Your task to perform on an android device: Go to CNN.com Image 0: 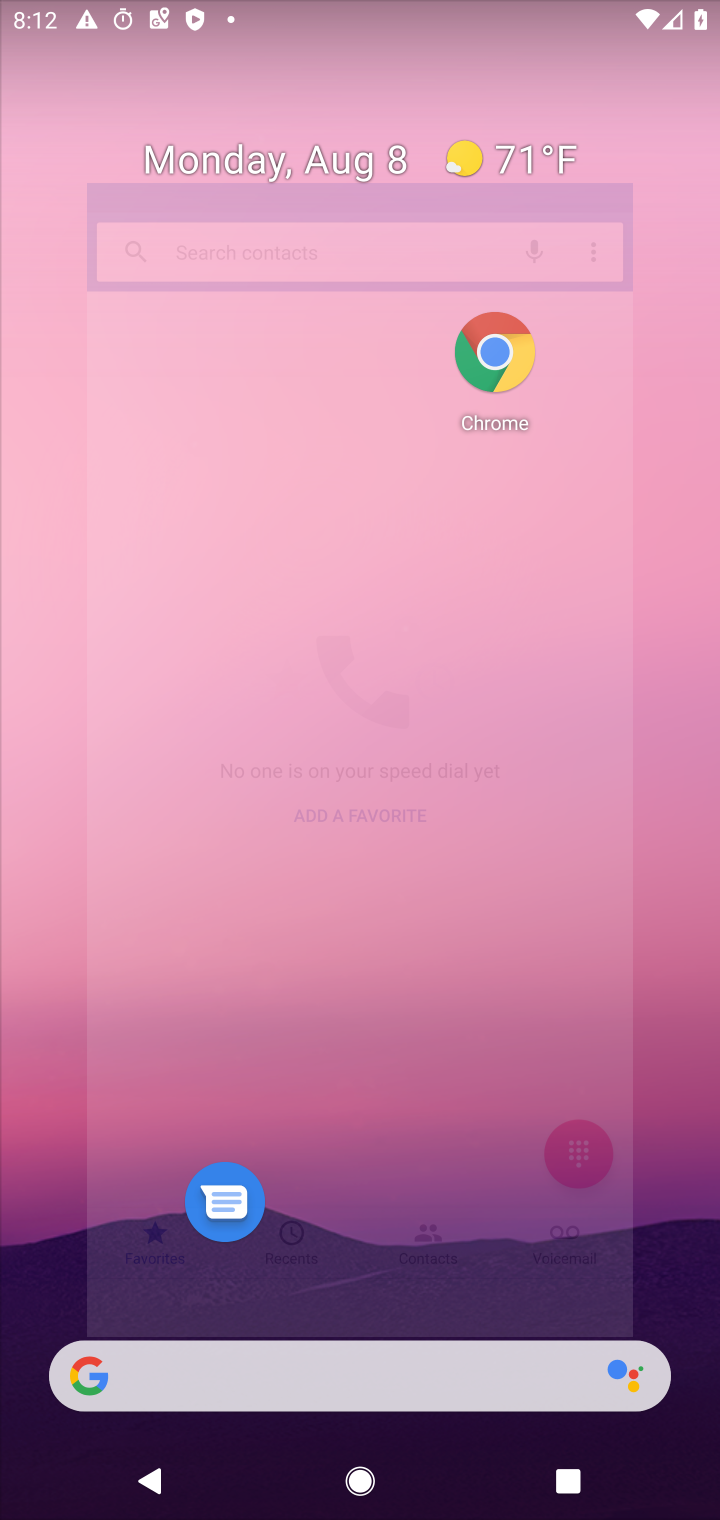
Step 0: press home button
Your task to perform on an android device: Go to CNN.com Image 1: 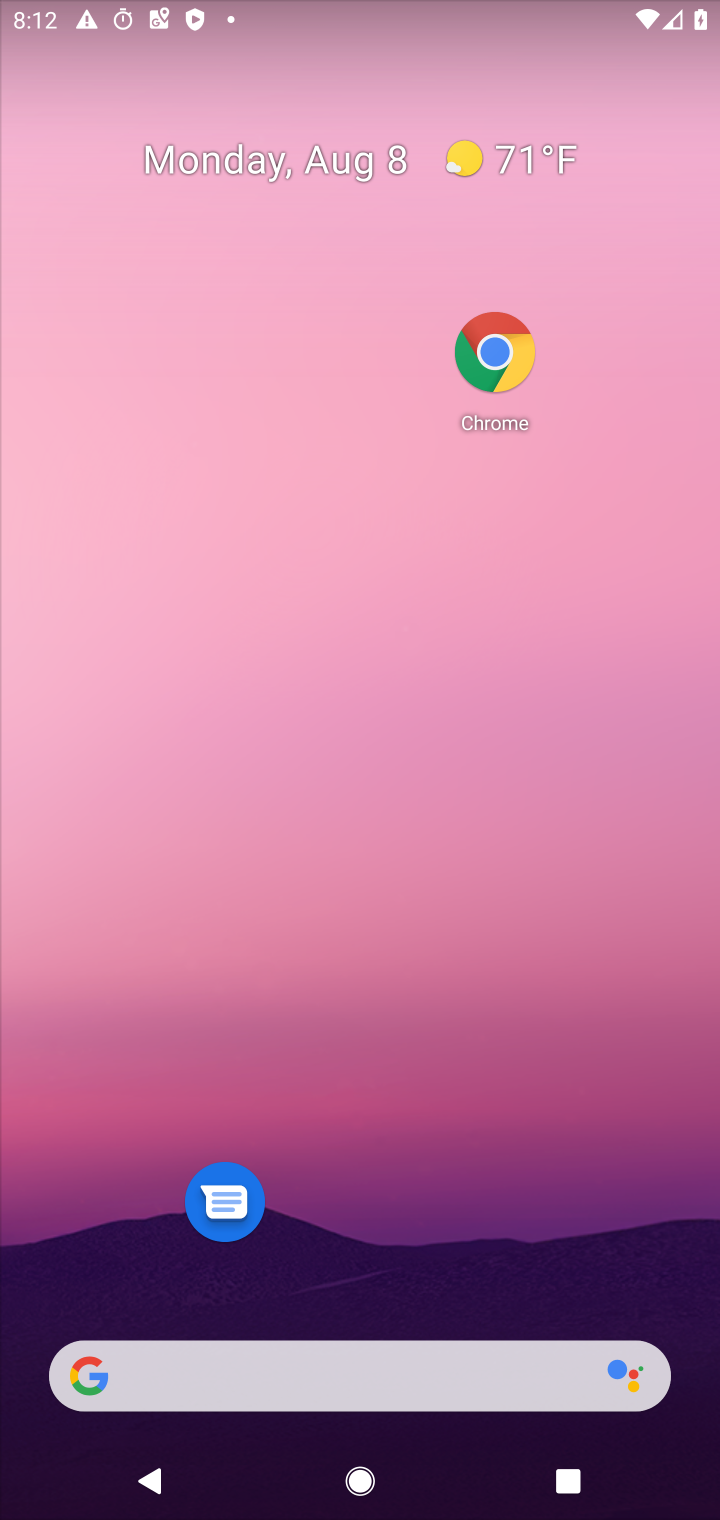
Step 1: click (516, 407)
Your task to perform on an android device: Go to CNN.com Image 2: 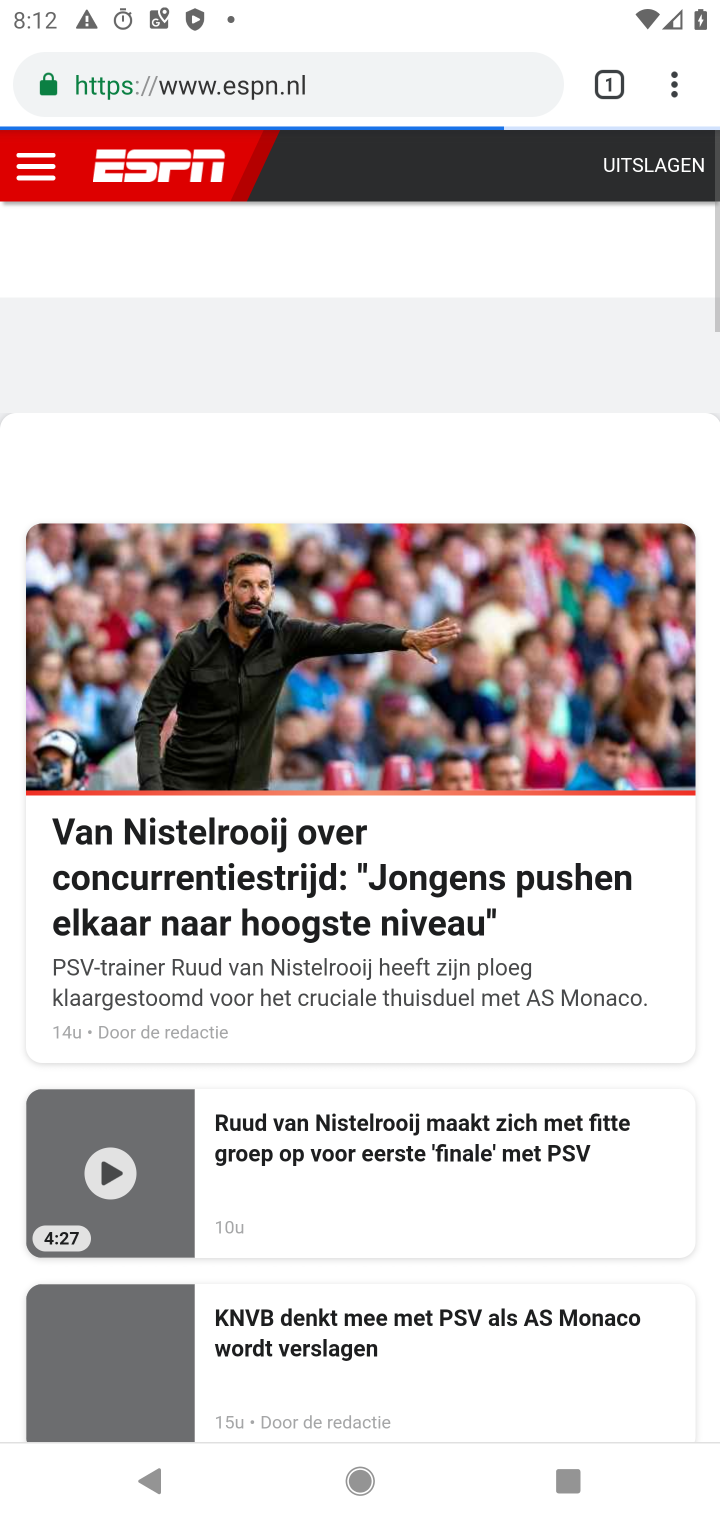
Step 2: click (486, 88)
Your task to perform on an android device: Go to CNN.com Image 3: 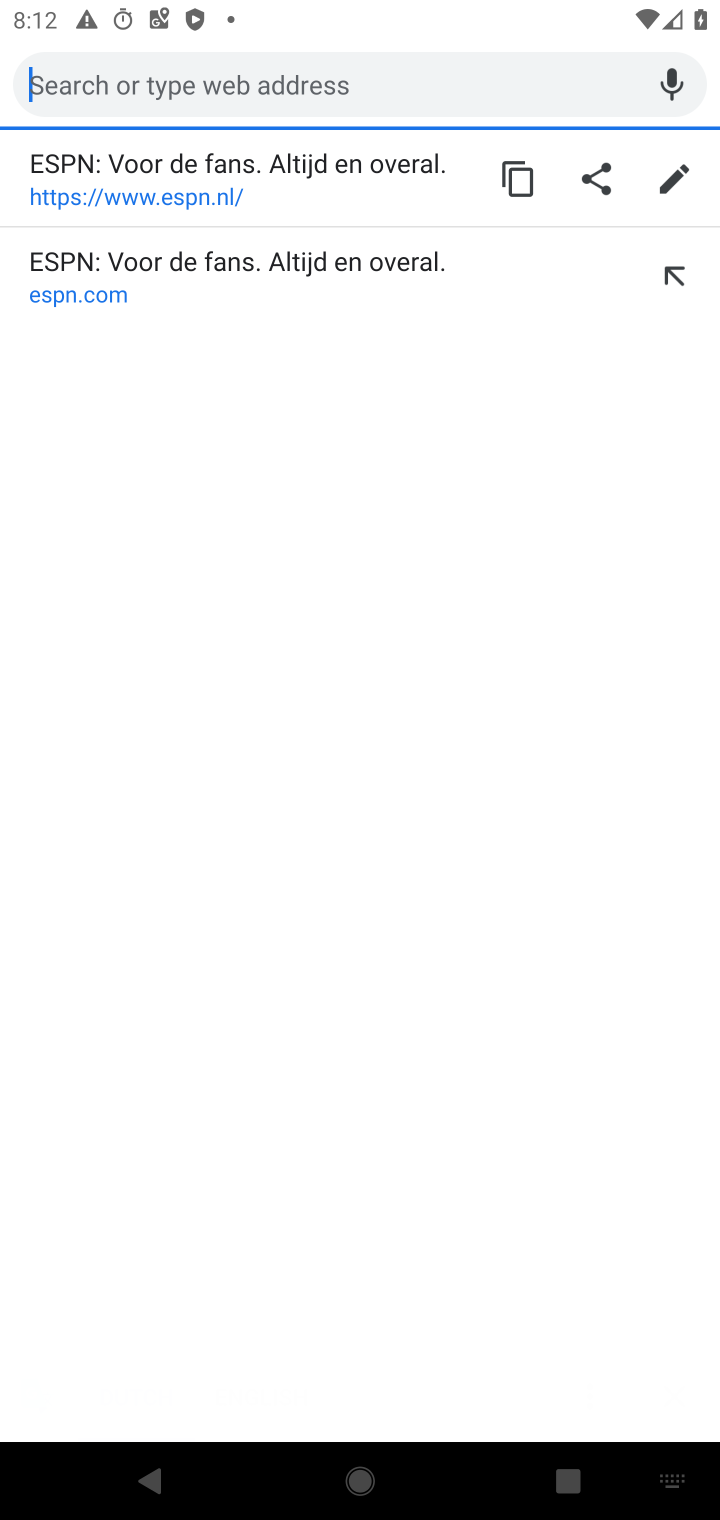
Step 3: type "cnn"
Your task to perform on an android device: Go to CNN.com Image 4: 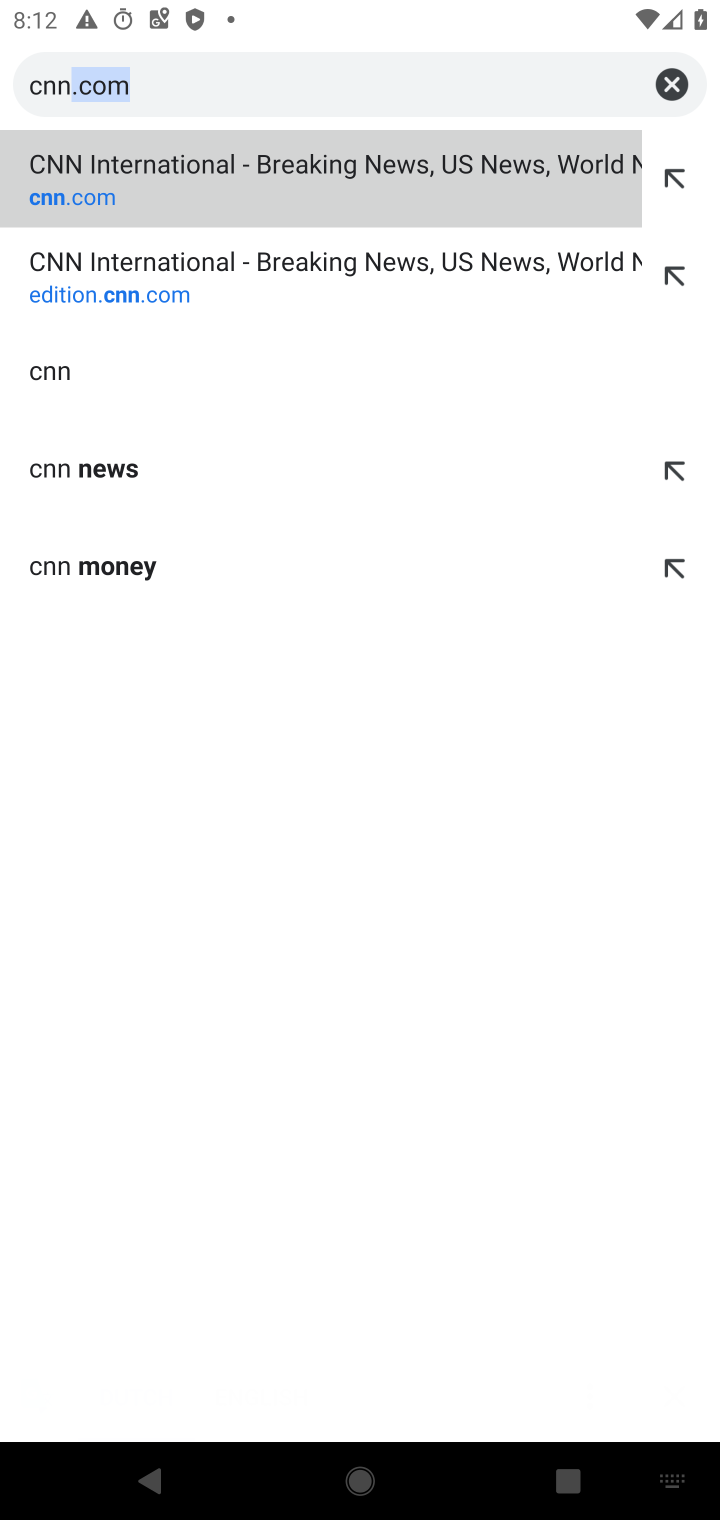
Step 4: click (512, 179)
Your task to perform on an android device: Go to CNN.com Image 5: 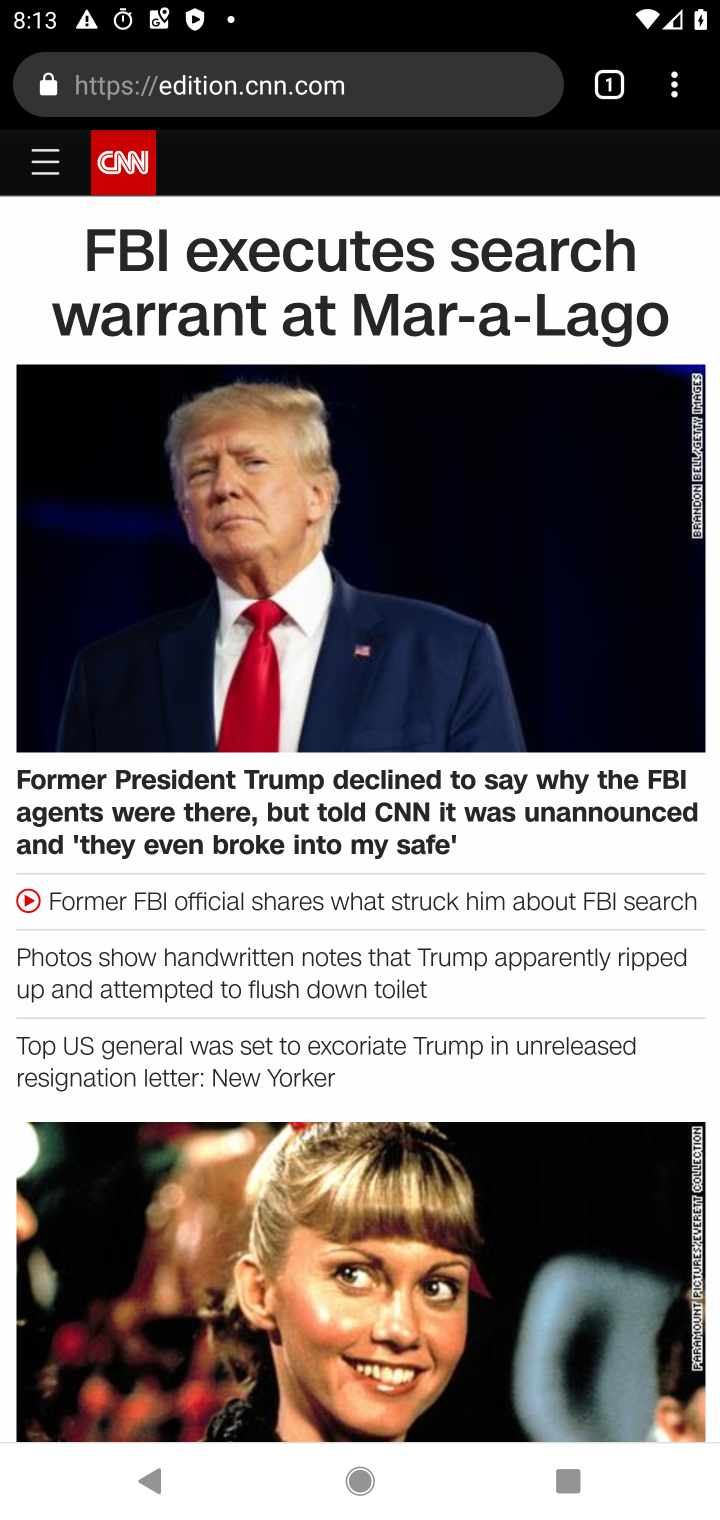
Step 5: task complete